Your task to perform on an android device: turn off location Image 0: 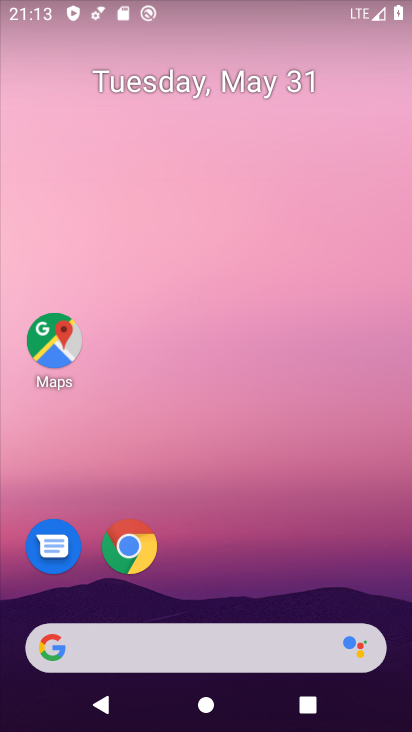
Step 0: drag from (383, 617) to (363, 209)
Your task to perform on an android device: turn off location Image 1: 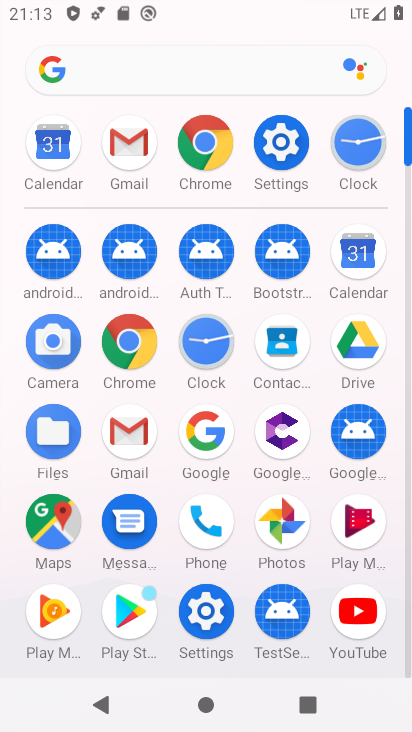
Step 1: click (290, 144)
Your task to perform on an android device: turn off location Image 2: 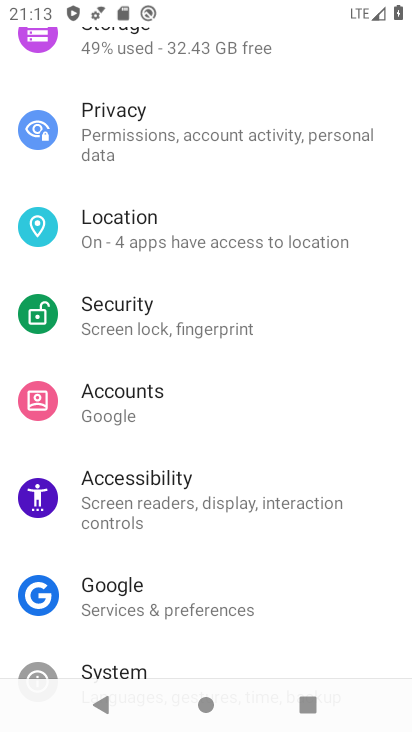
Step 2: click (117, 226)
Your task to perform on an android device: turn off location Image 3: 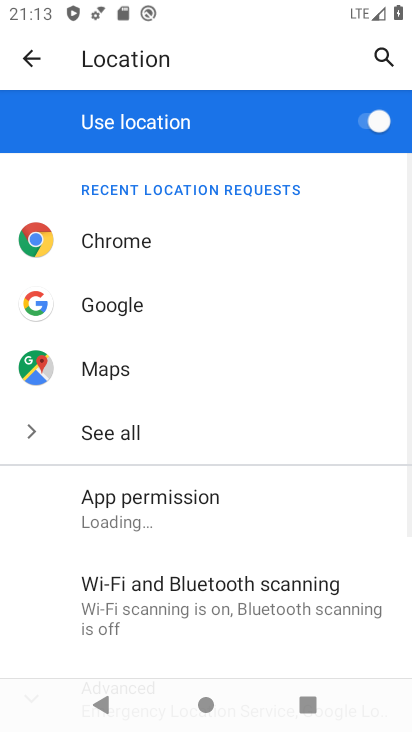
Step 3: click (364, 121)
Your task to perform on an android device: turn off location Image 4: 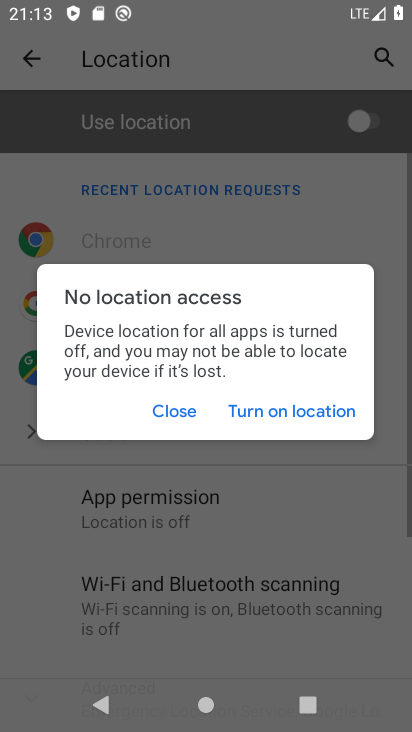
Step 4: task complete